Your task to perform on an android device: Open Google Image 0: 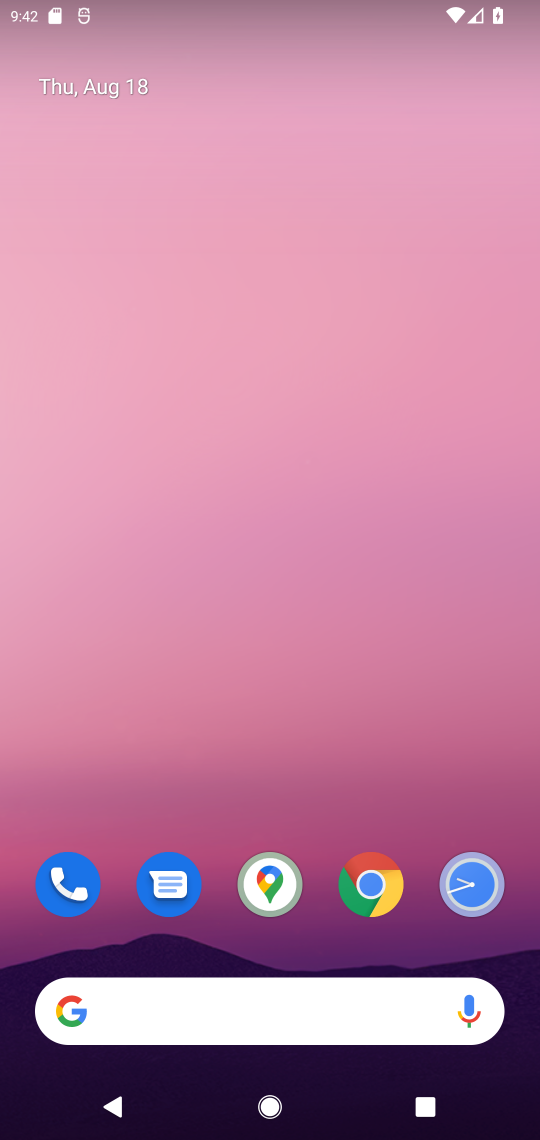
Step 0: click (230, 986)
Your task to perform on an android device: Open Google Image 1: 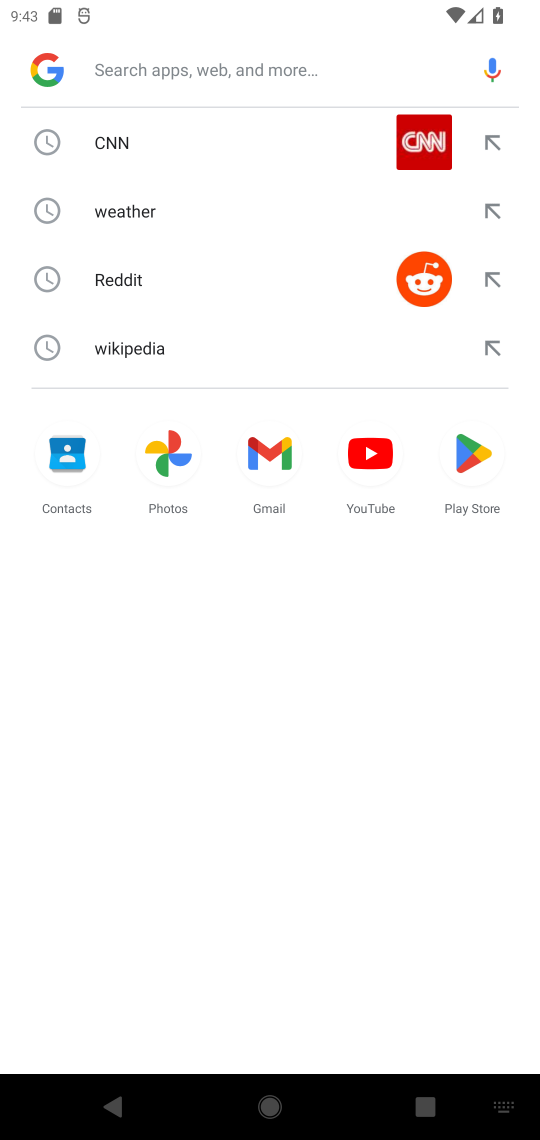
Step 1: click (50, 86)
Your task to perform on an android device: Open Google Image 2: 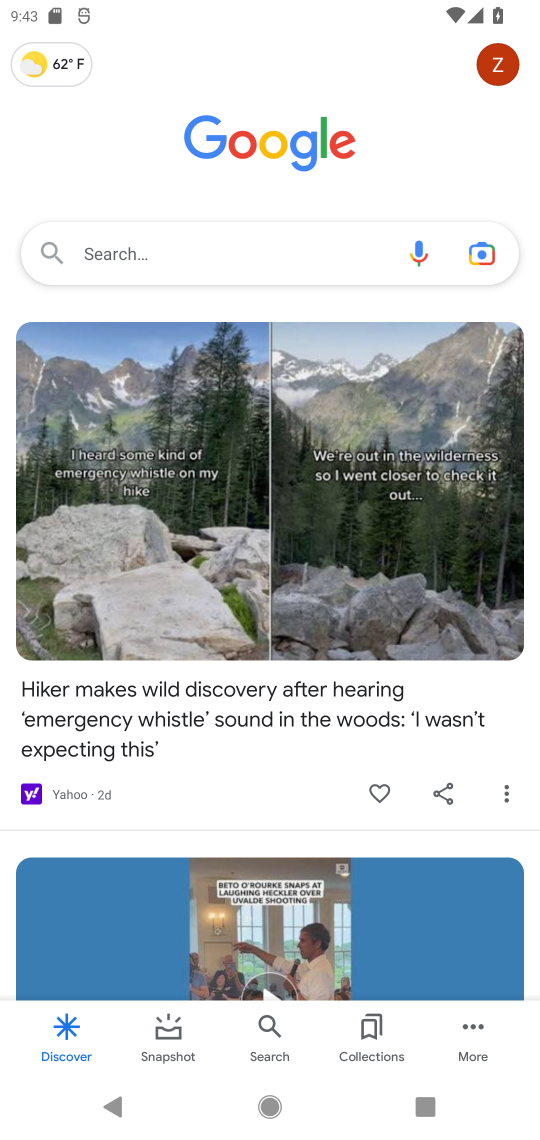
Step 2: task complete